Your task to perform on an android device: Is it going to rain today? Image 0: 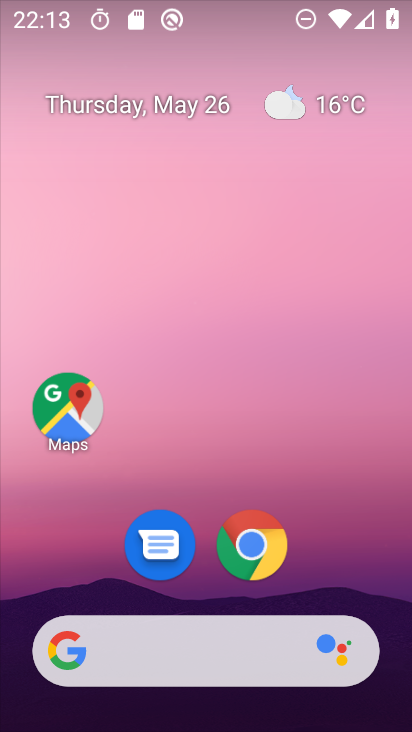
Step 0: drag from (327, 570) to (367, 107)
Your task to perform on an android device: Is it going to rain today? Image 1: 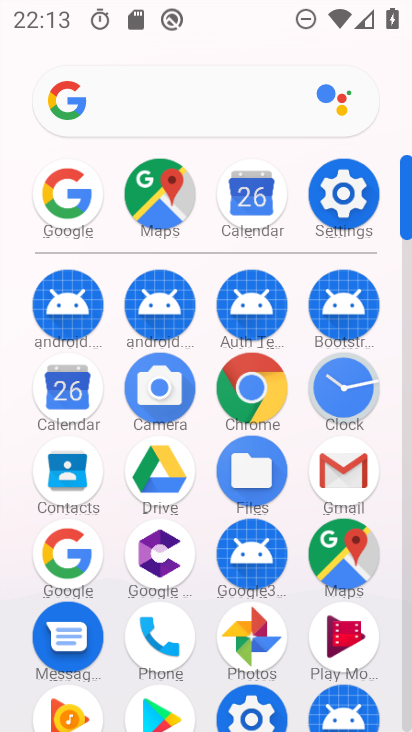
Step 1: click (57, 195)
Your task to perform on an android device: Is it going to rain today? Image 2: 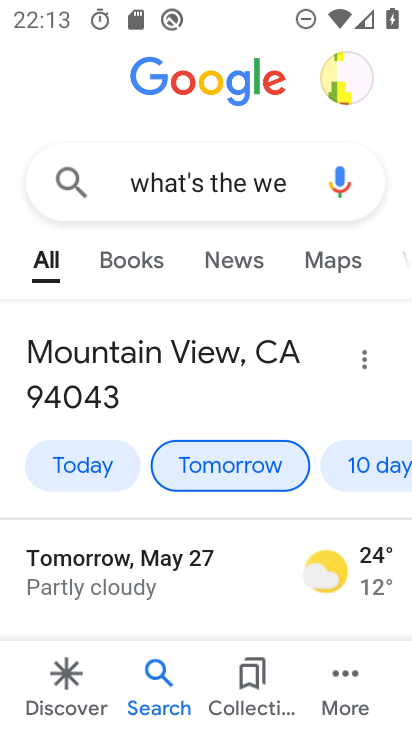
Step 2: click (294, 181)
Your task to perform on an android device: Is it going to rain today? Image 3: 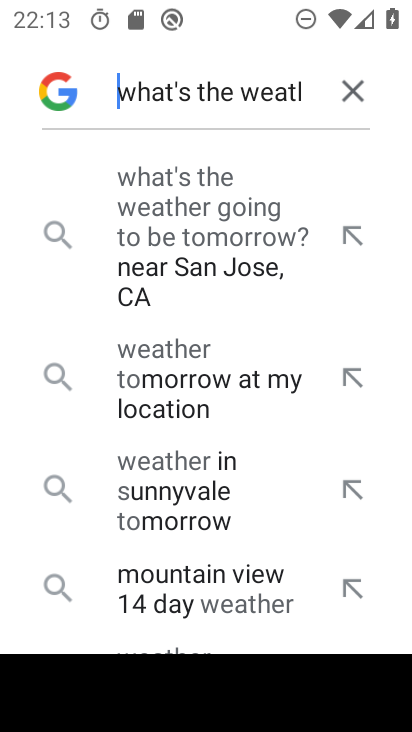
Step 3: click (348, 92)
Your task to perform on an android device: Is it going to rain today? Image 4: 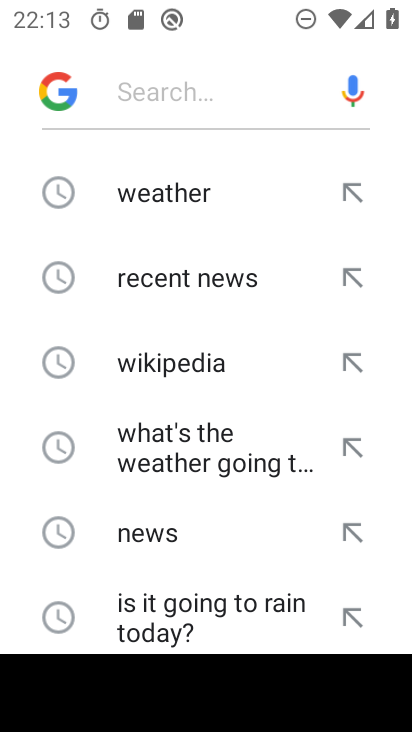
Step 4: click (207, 605)
Your task to perform on an android device: Is it going to rain today? Image 5: 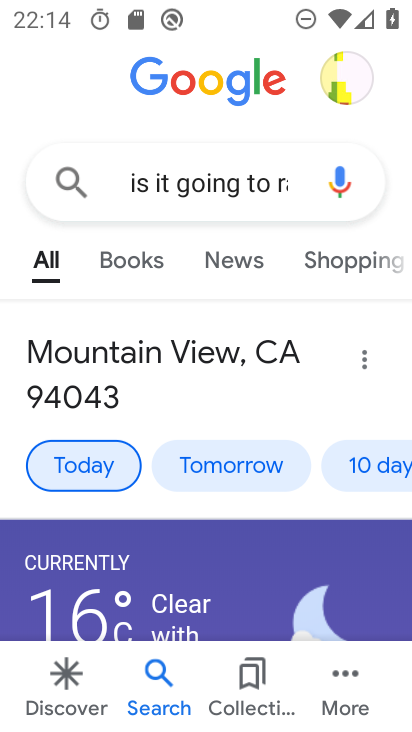
Step 5: task complete